Your task to perform on an android device: change text size in settings app Image 0: 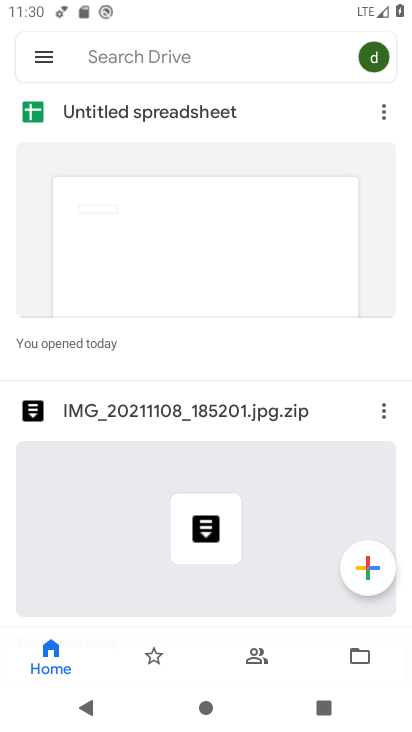
Step 0: press home button
Your task to perform on an android device: change text size in settings app Image 1: 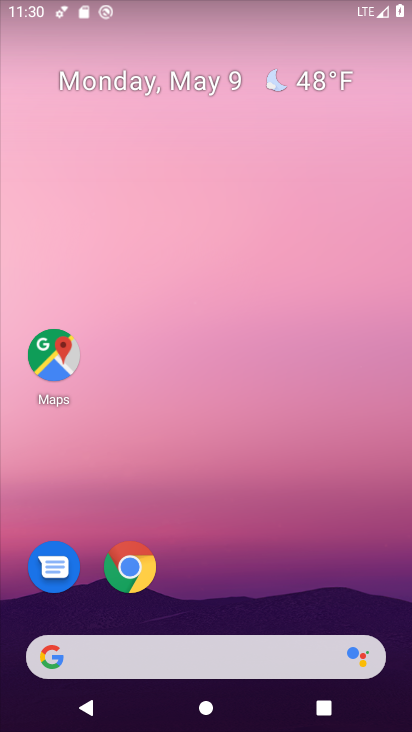
Step 1: drag from (321, 247) to (343, 205)
Your task to perform on an android device: change text size in settings app Image 2: 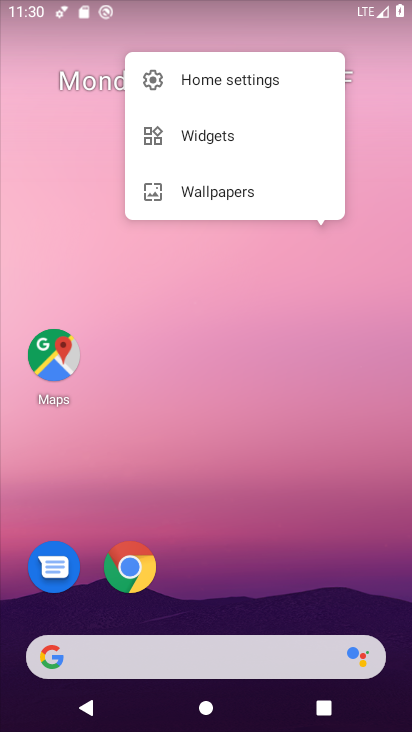
Step 2: drag from (192, 620) to (239, 118)
Your task to perform on an android device: change text size in settings app Image 3: 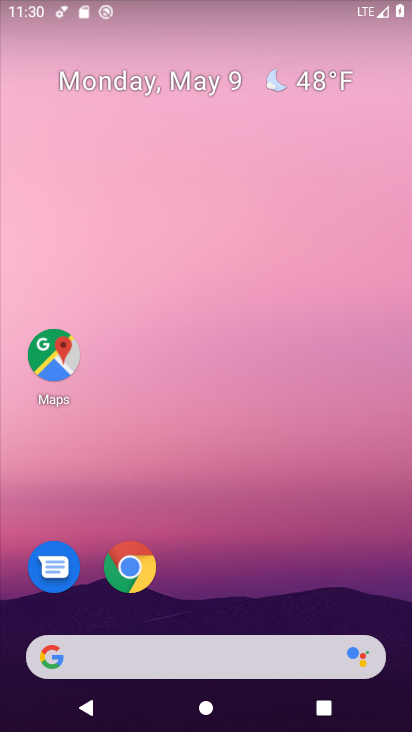
Step 3: drag from (197, 605) to (203, 210)
Your task to perform on an android device: change text size in settings app Image 4: 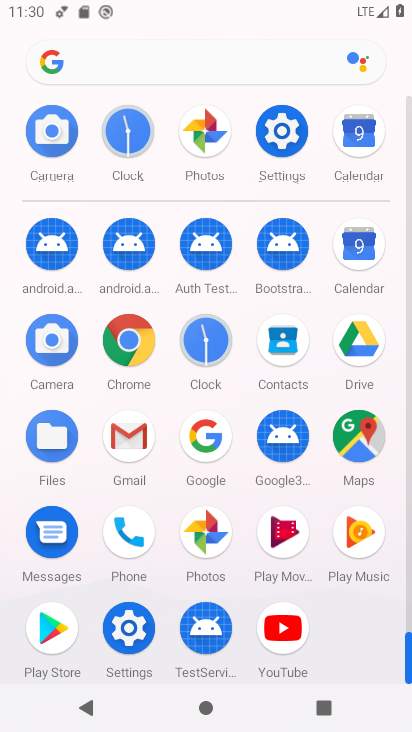
Step 4: drag from (226, 620) to (314, 4)
Your task to perform on an android device: change text size in settings app Image 5: 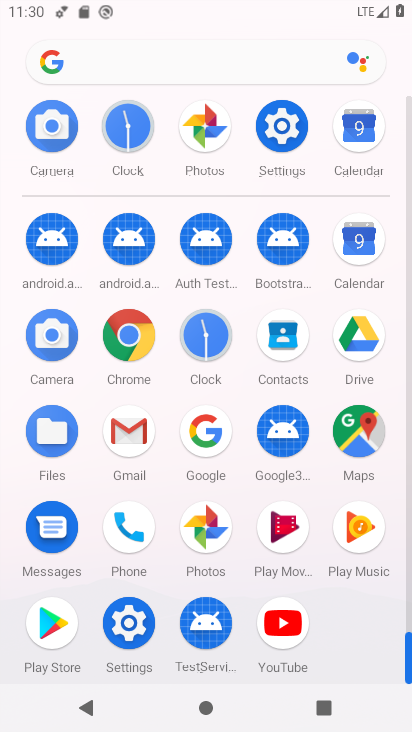
Step 5: click (123, 634)
Your task to perform on an android device: change text size in settings app Image 6: 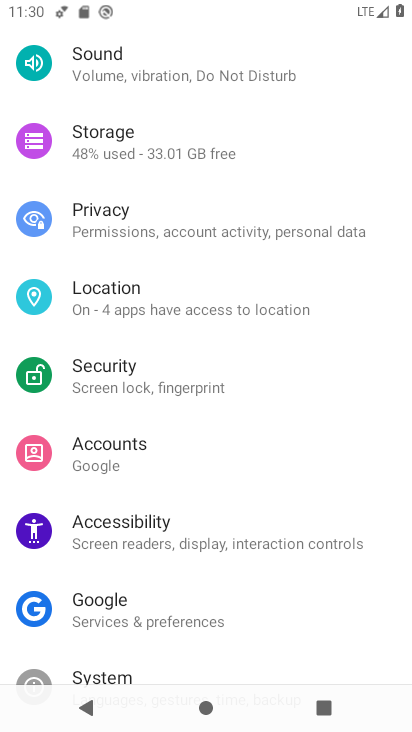
Step 6: drag from (165, 201) to (141, 530)
Your task to perform on an android device: change text size in settings app Image 7: 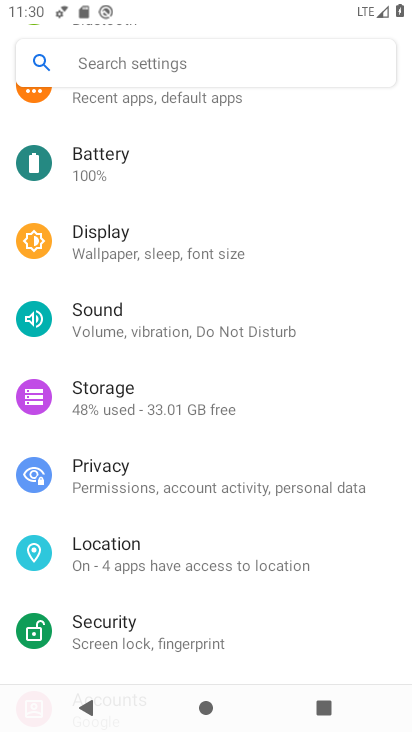
Step 7: click (130, 233)
Your task to perform on an android device: change text size in settings app Image 8: 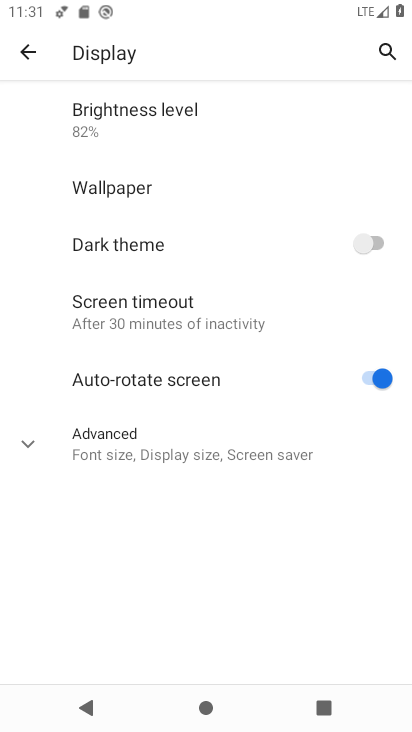
Step 8: click (114, 452)
Your task to perform on an android device: change text size in settings app Image 9: 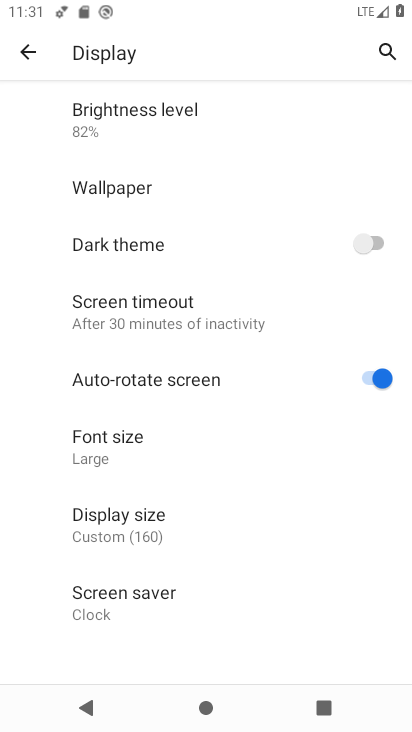
Step 9: click (122, 450)
Your task to perform on an android device: change text size in settings app Image 10: 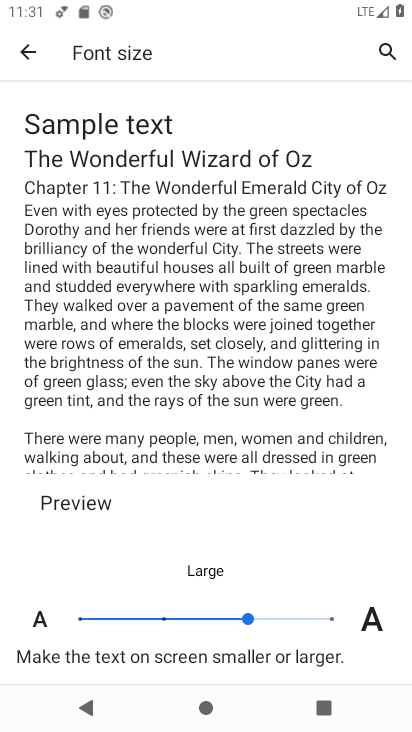
Step 10: click (164, 618)
Your task to perform on an android device: change text size in settings app Image 11: 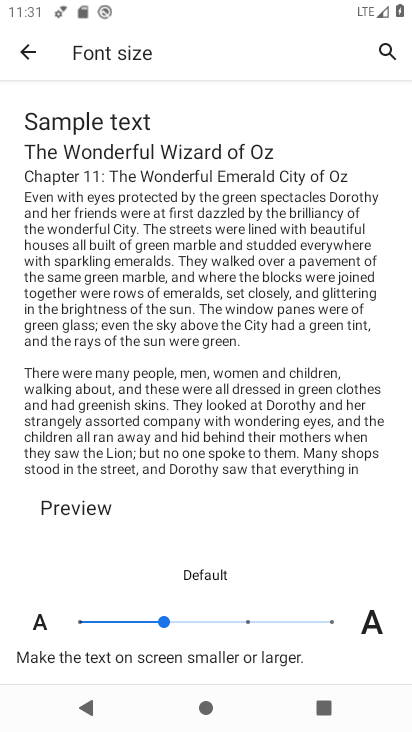
Step 11: task complete